Your task to perform on an android device: stop showing notifications on the lock screen Image 0: 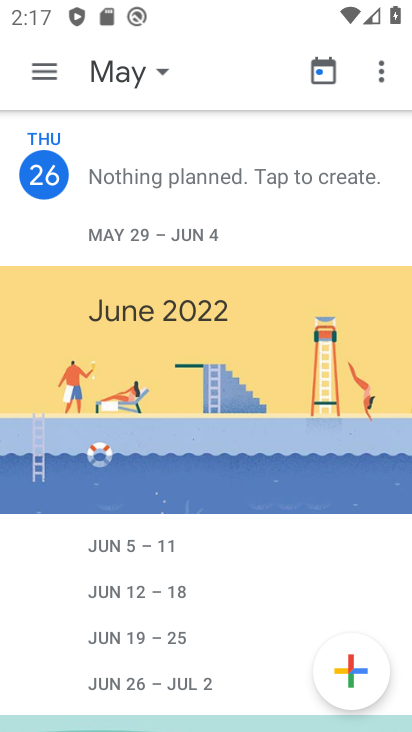
Step 0: press back button
Your task to perform on an android device: stop showing notifications on the lock screen Image 1: 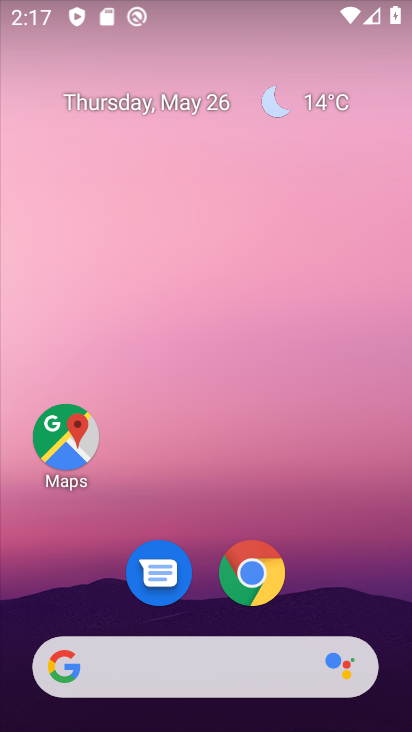
Step 1: drag from (335, 603) to (295, 40)
Your task to perform on an android device: stop showing notifications on the lock screen Image 2: 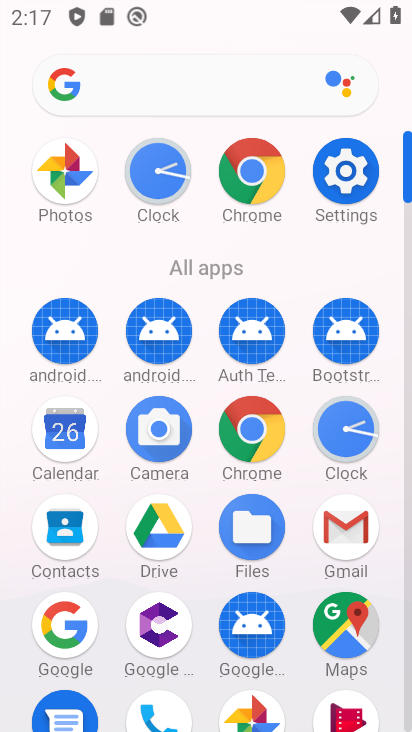
Step 2: click (346, 167)
Your task to perform on an android device: stop showing notifications on the lock screen Image 3: 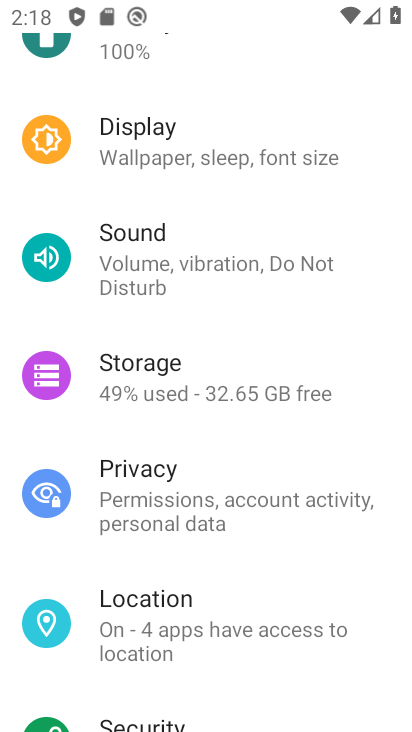
Step 3: drag from (235, 562) to (225, 253)
Your task to perform on an android device: stop showing notifications on the lock screen Image 4: 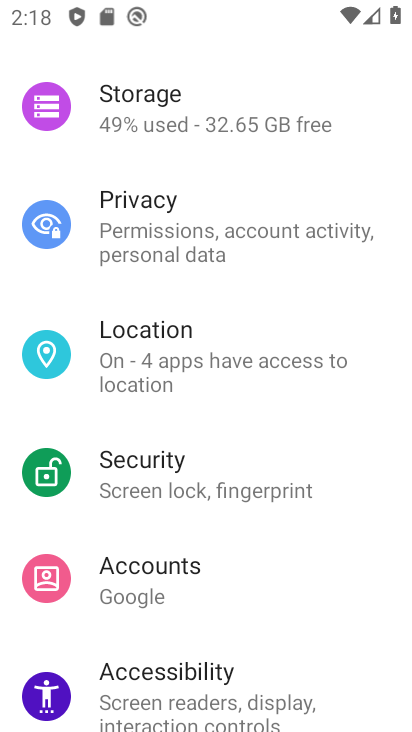
Step 4: drag from (254, 184) to (214, 632)
Your task to perform on an android device: stop showing notifications on the lock screen Image 5: 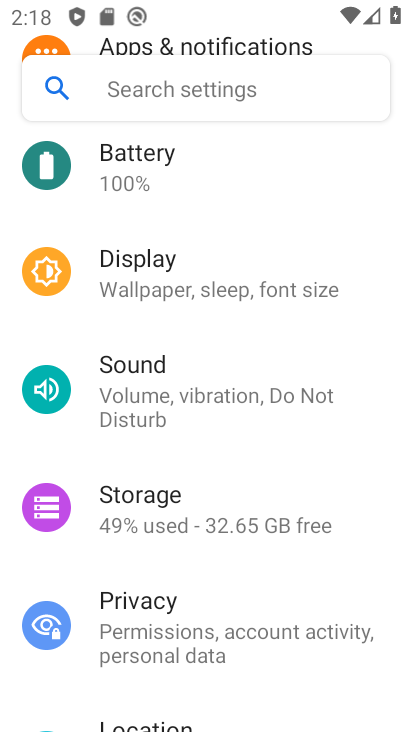
Step 5: click (247, 572)
Your task to perform on an android device: stop showing notifications on the lock screen Image 6: 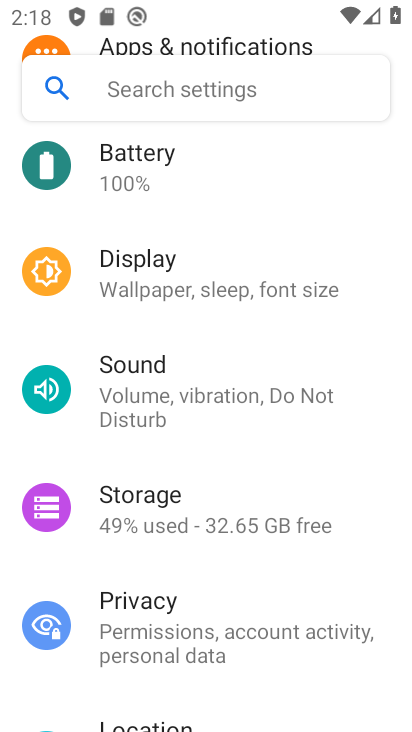
Step 6: drag from (276, 233) to (249, 578)
Your task to perform on an android device: stop showing notifications on the lock screen Image 7: 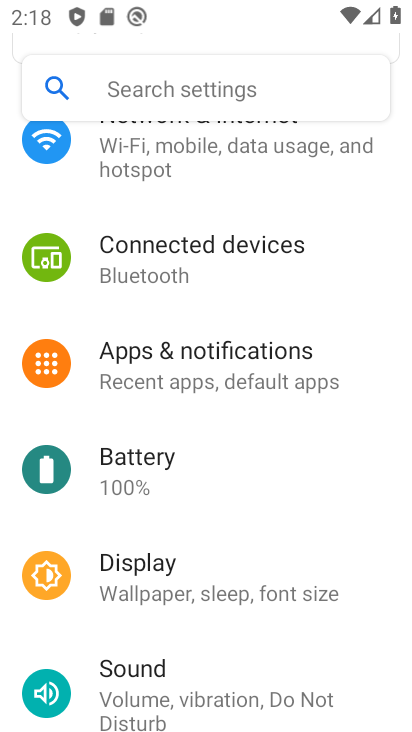
Step 7: click (203, 363)
Your task to perform on an android device: stop showing notifications on the lock screen Image 8: 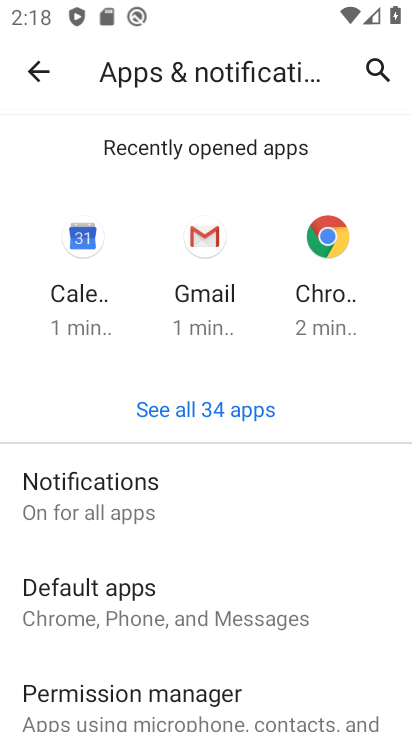
Step 8: drag from (256, 631) to (221, 176)
Your task to perform on an android device: stop showing notifications on the lock screen Image 9: 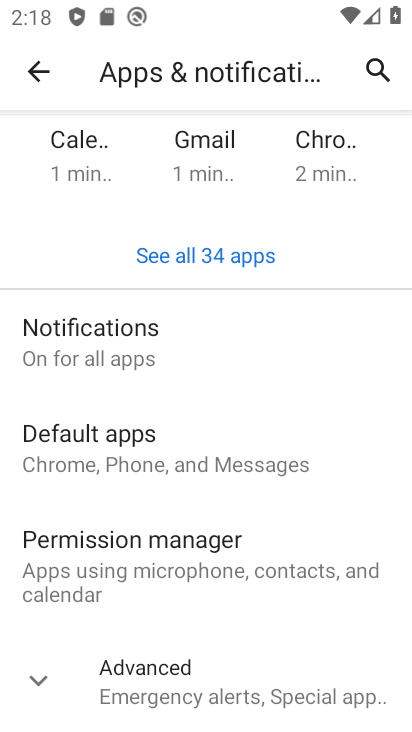
Step 9: click (30, 666)
Your task to perform on an android device: stop showing notifications on the lock screen Image 10: 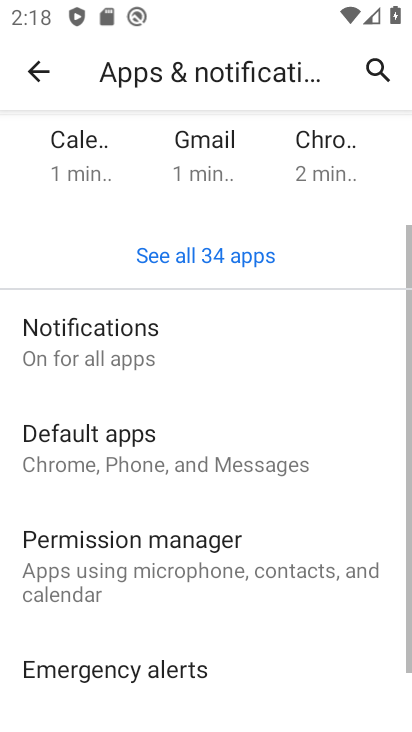
Step 10: drag from (243, 682) to (265, 352)
Your task to perform on an android device: stop showing notifications on the lock screen Image 11: 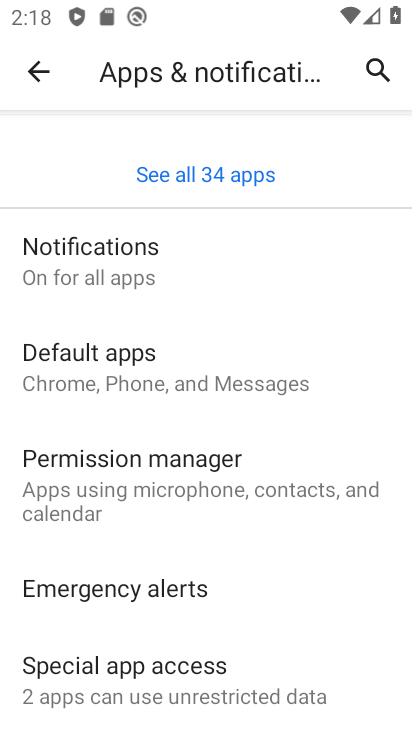
Step 11: click (151, 264)
Your task to perform on an android device: stop showing notifications on the lock screen Image 12: 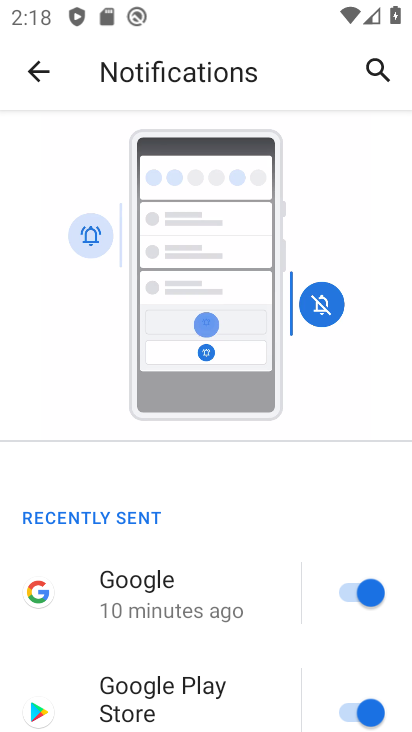
Step 12: drag from (221, 577) to (248, 90)
Your task to perform on an android device: stop showing notifications on the lock screen Image 13: 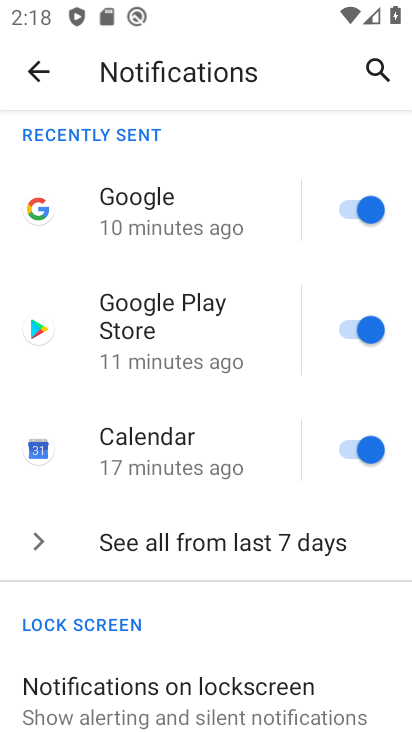
Step 13: drag from (208, 618) to (246, 215)
Your task to perform on an android device: stop showing notifications on the lock screen Image 14: 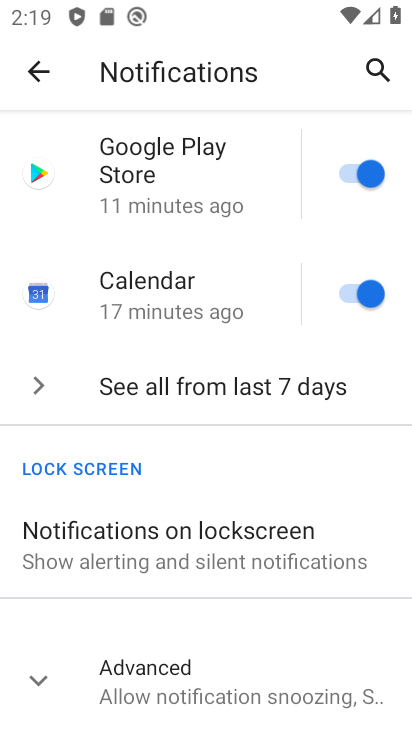
Step 14: click (266, 543)
Your task to perform on an android device: stop showing notifications on the lock screen Image 15: 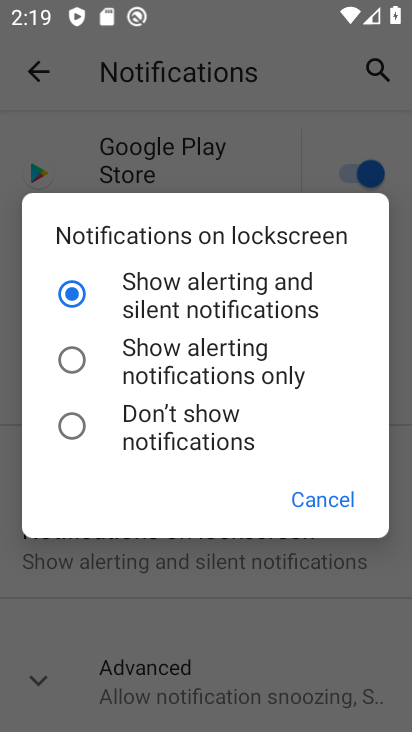
Step 15: click (176, 436)
Your task to perform on an android device: stop showing notifications on the lock screen Image 16: 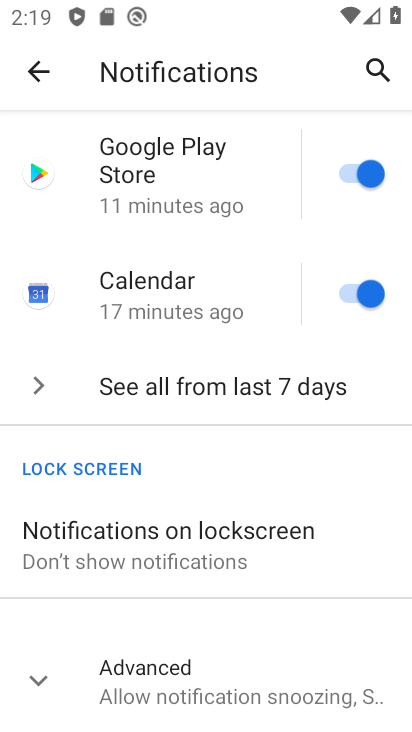
Step 16: task complete